Your task to perform on an android device: change alarm snooze length Image 0: 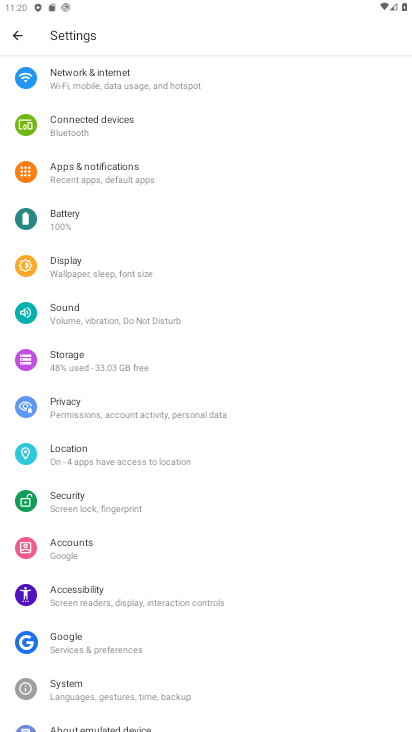
Step 0: press home button
Your task to perform on an android device: change alarm snooze length Image 1: 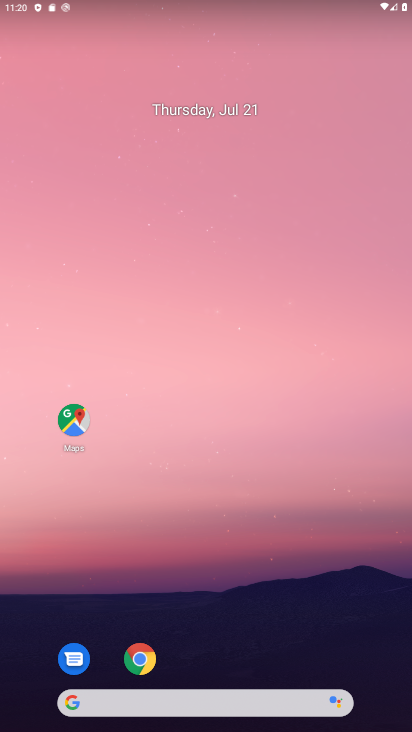
Step 1: drag from (285, 239) to (272, 115)
Your task to perform on an android device: change alarm snooze length Image 2: 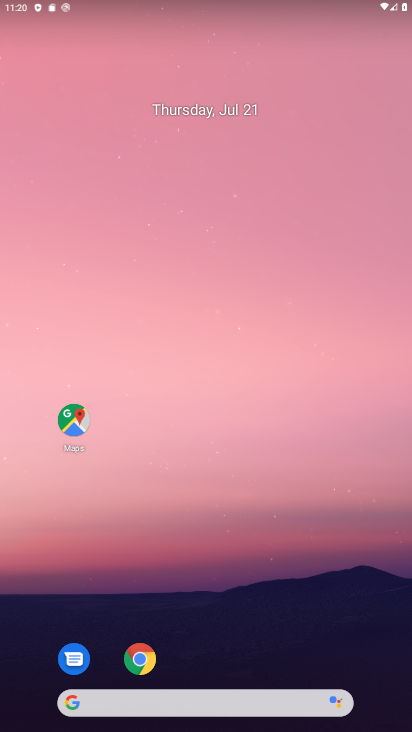
Step 2: drag from (283, 347) to (256, 105)
Your task to perform on an android device: change alarm snooze length Image 3: 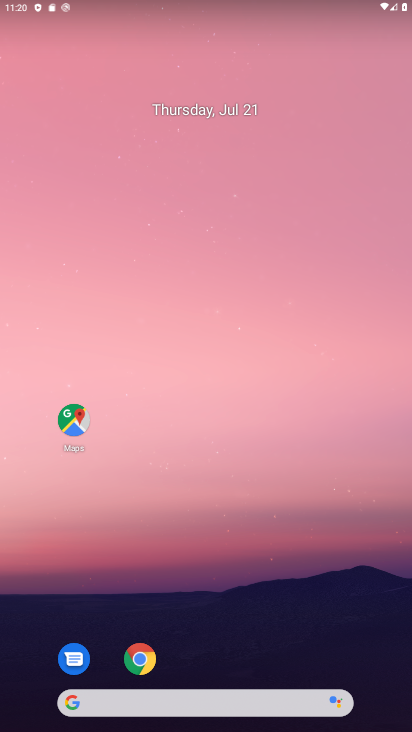
Step 3: drag from (234, 630) to (256, 129)
Your task to perform on an android device: change alarm snooze length Image 4: 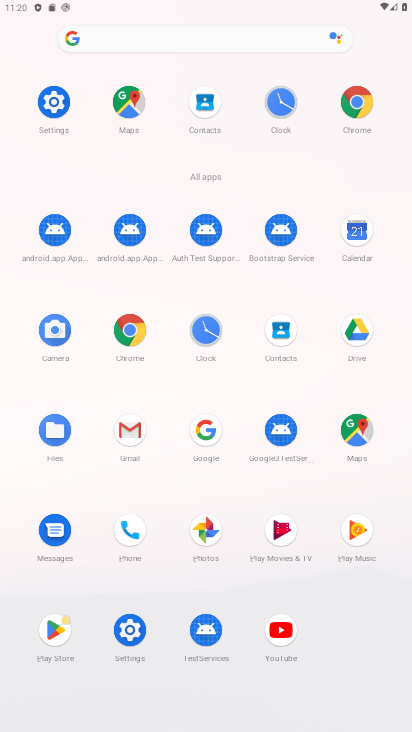
Step 4: click (290, 118)
Your task to perform on an android device: change alarm snooze length Image 5: 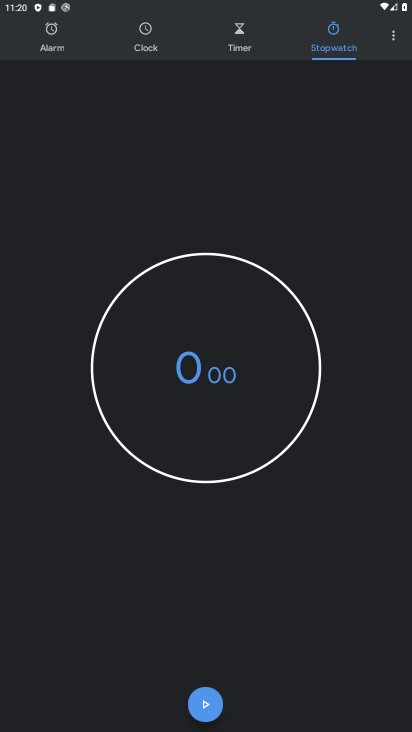
Step 5: click (405, 41)
Your task to perform on an android device: change alarm snooze length Image 6: 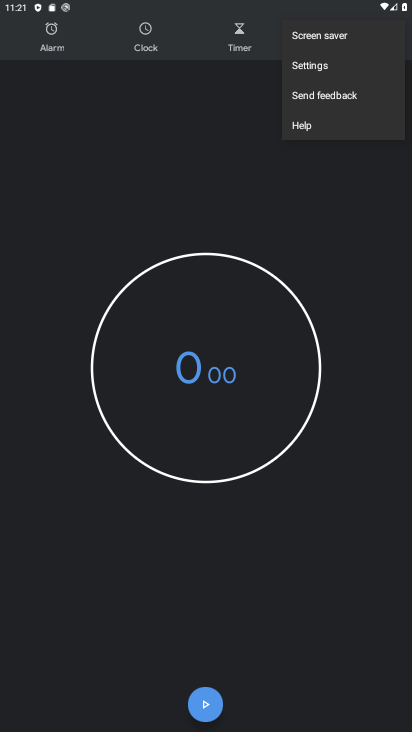
Step 6: click (362, 64)
Your task to perform on an android device: change alarm snooze length Image 7: 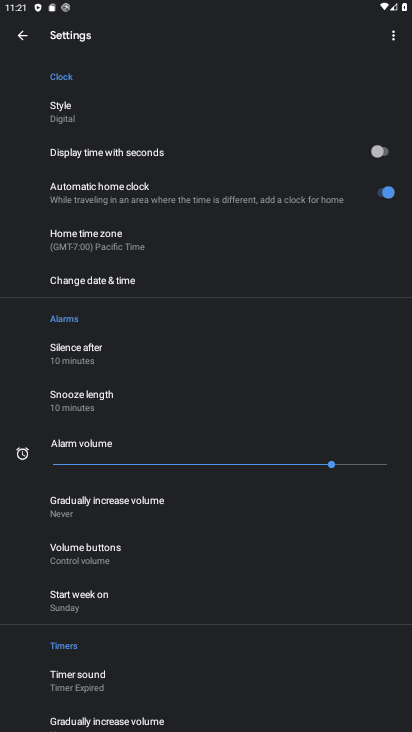
Step 7: click (128, 411)
Your task to perform on an android device: change alarm snooze length Image 8: 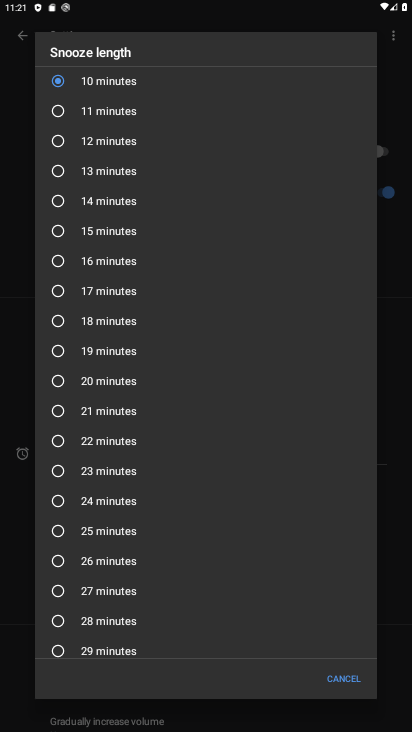
Step 8: click (92, 648)
Your task to perform on an android device: change alarm snooze length Image 9: 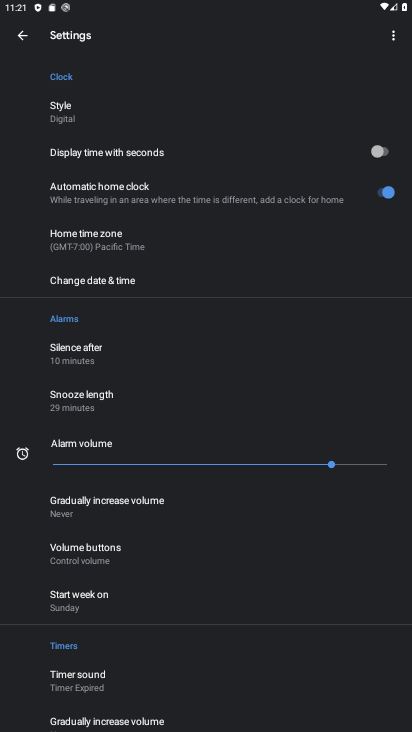
Step 9: task complete